Your task to perform on an android device: Is it going to rain this weekend? Image 0: 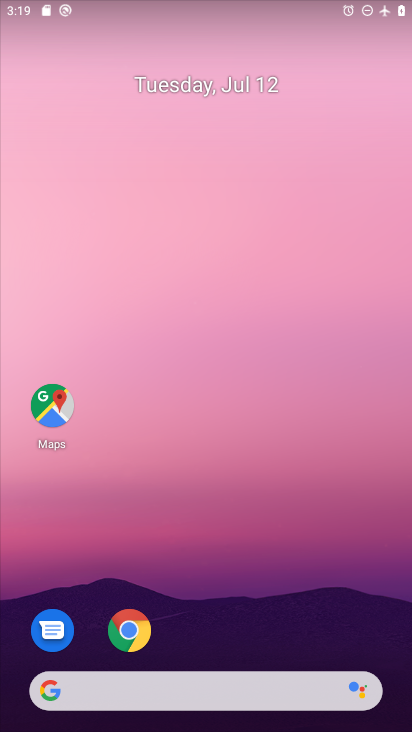
Step 0: drag from (216, 650) to (229, 222)
Your task to perform on an android device: Is it going to rain this weekend? Image 1: 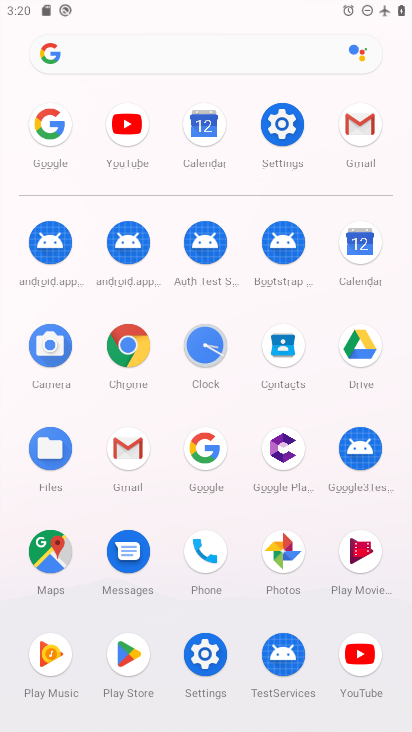
Step 1: click (190, 446)
Your task to perform on an android device: Is it going to rain this weekend? Image 2: 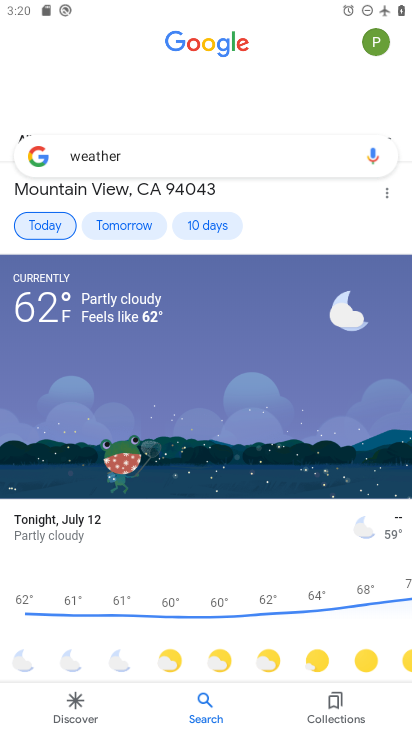
Step 2: click (216, 230)
Your task to perform on an android device: Is it going to rain this weekend? Image 3: 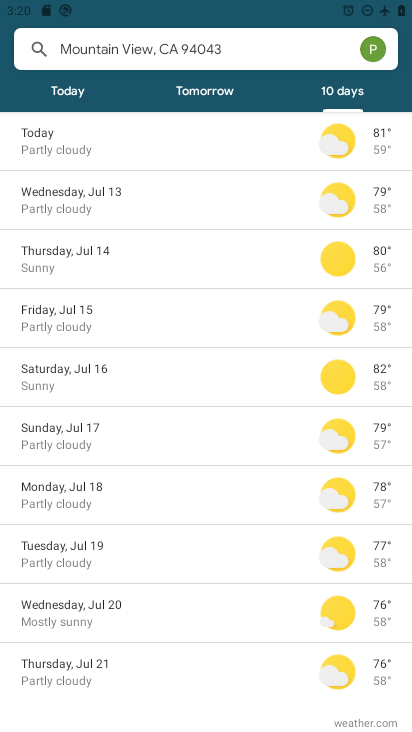
Step 3: task complete